Your task to perform on an android device: Show me popular games on the Play Store Image 0: 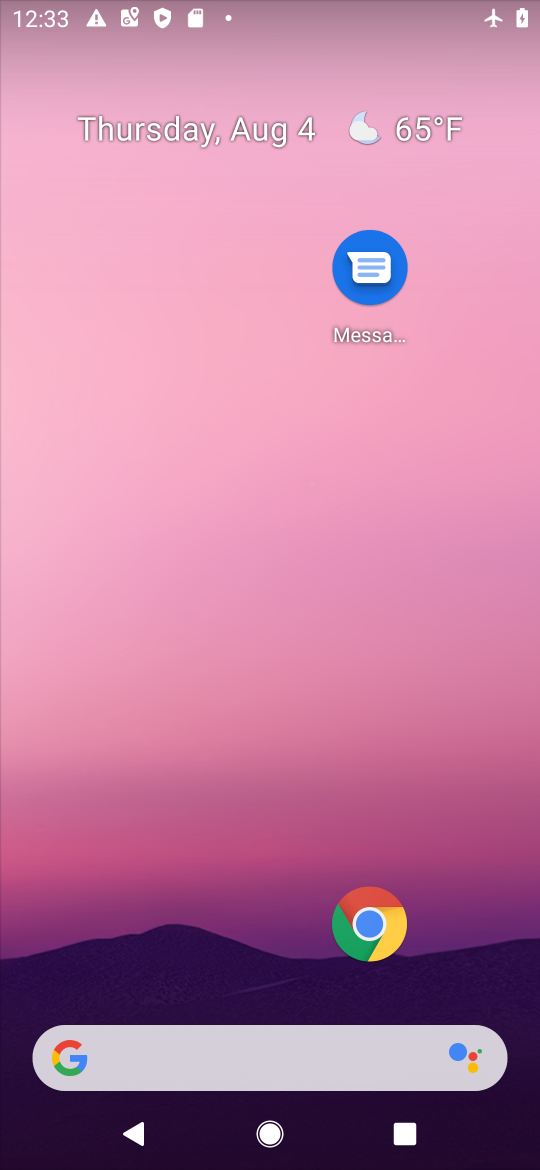
Step 0: drag from (133, 805) to (211, 315)
Your task to perform on an android device: Show me popular games on the Play Store Image 1: 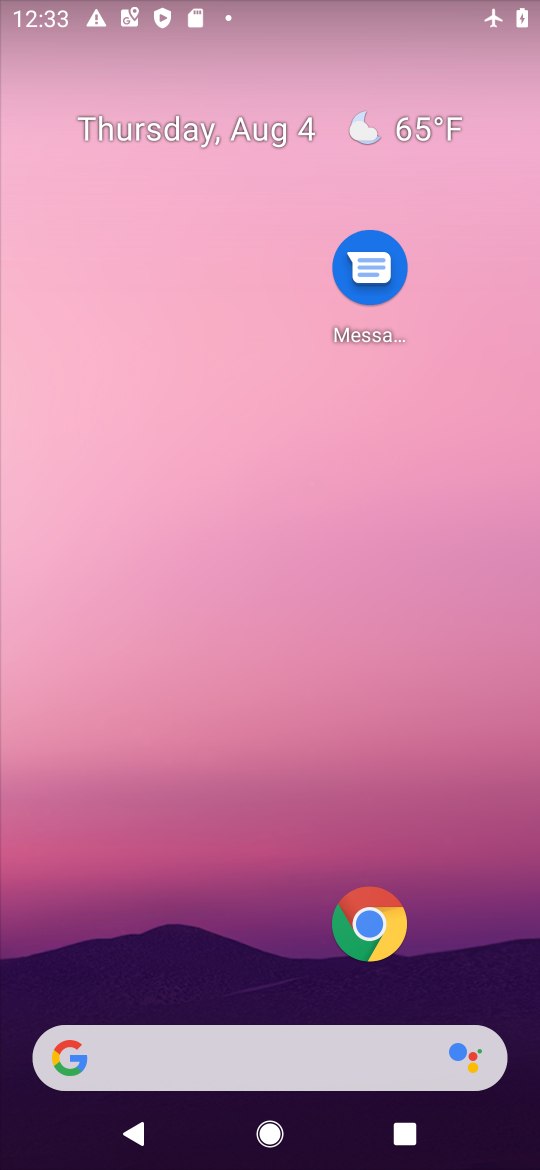
Step 1: drag from (111, 1019) to (278, 140)
Your task to perform on an android device: Show me popular games on the Play Store Image 2: 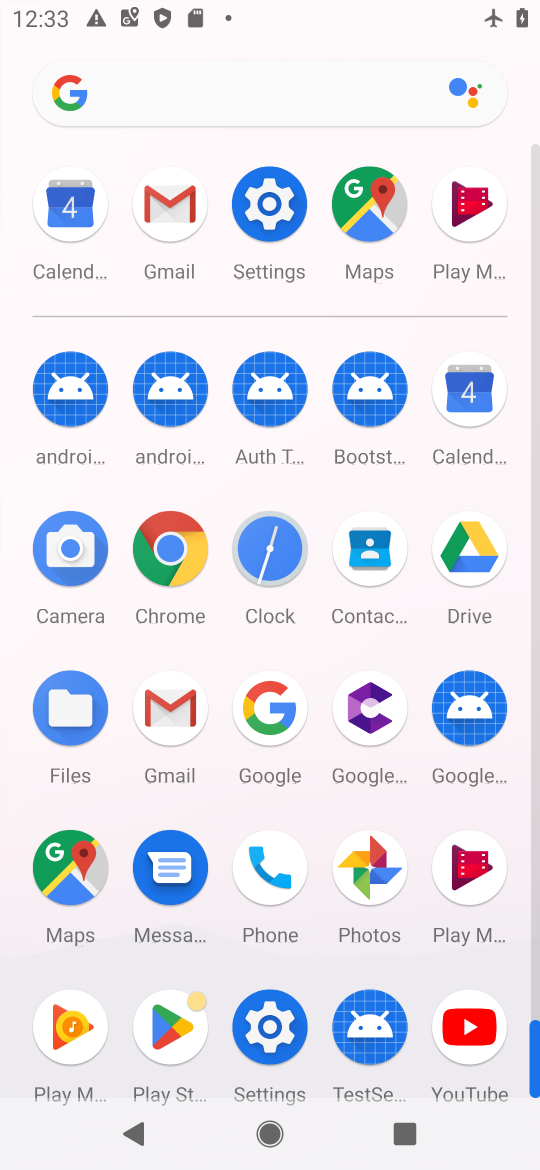
Step 2: click (161, 1034)
Your task to perform on an android device: Show me popular games on the Play Store Image 3: 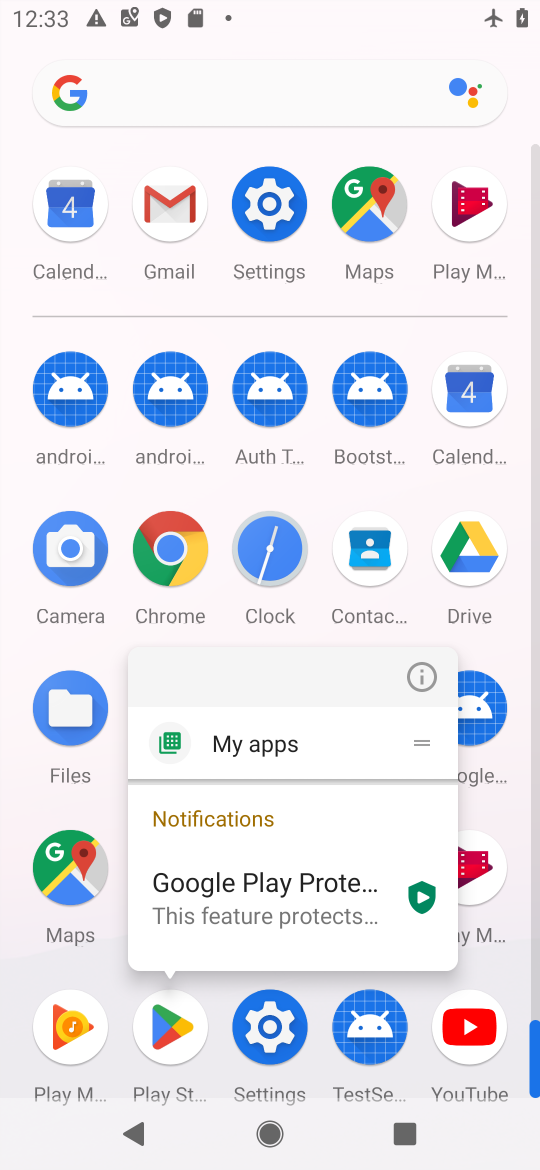
Step 3: click (162, 1042)
Your task to perform on an android device: Show me popular games on the Play Store Image 4: 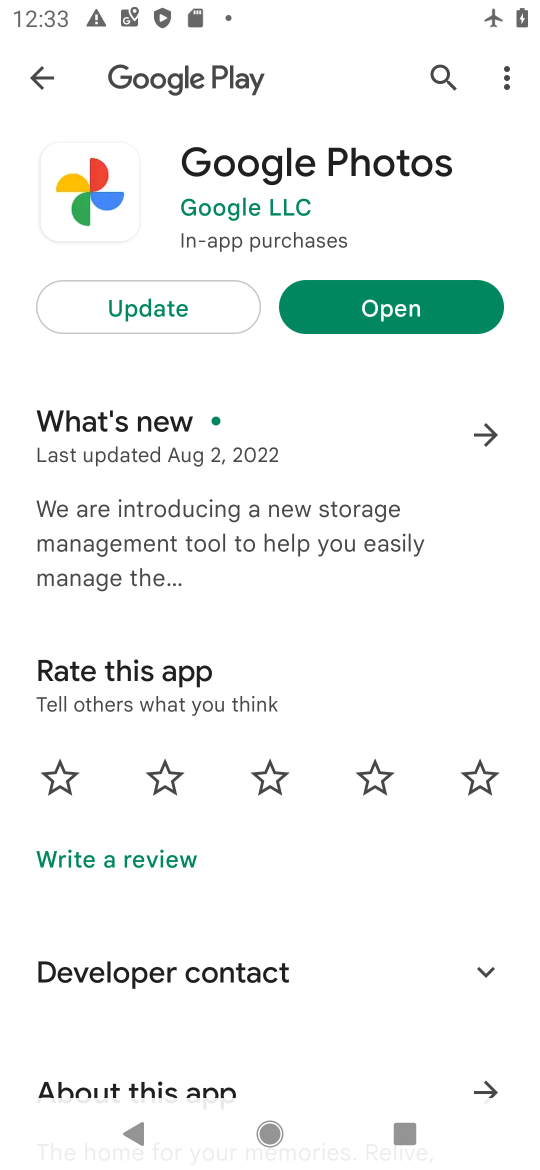
Step 4: click (44, 72)
Your task to perform on an android device: Show me popular games on the Play Store Image 5: 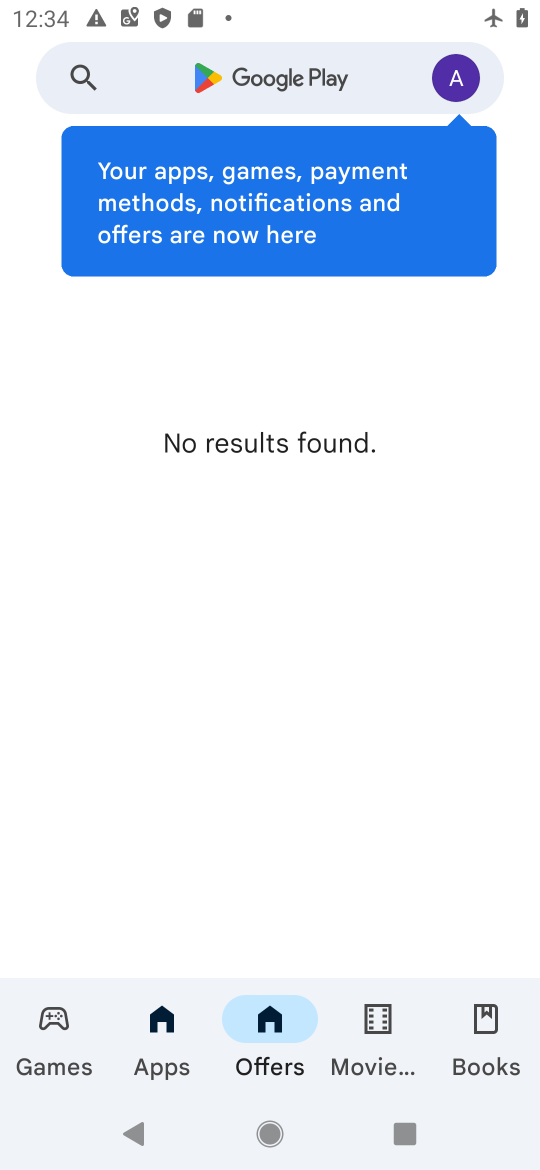
Step 5: click (166, 77)
Your task to perform on an android device: Show me popular games on the Play Store Image 6: 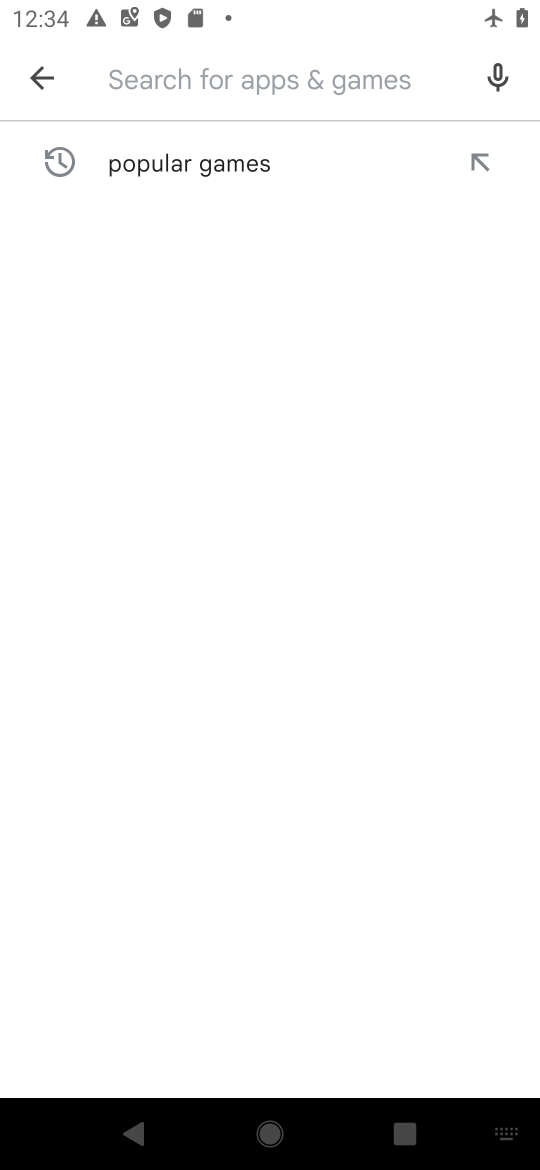
Step 6: click (227, 155)
Your task to perform on an android device: Show me popular games on the Play Store Image 7: 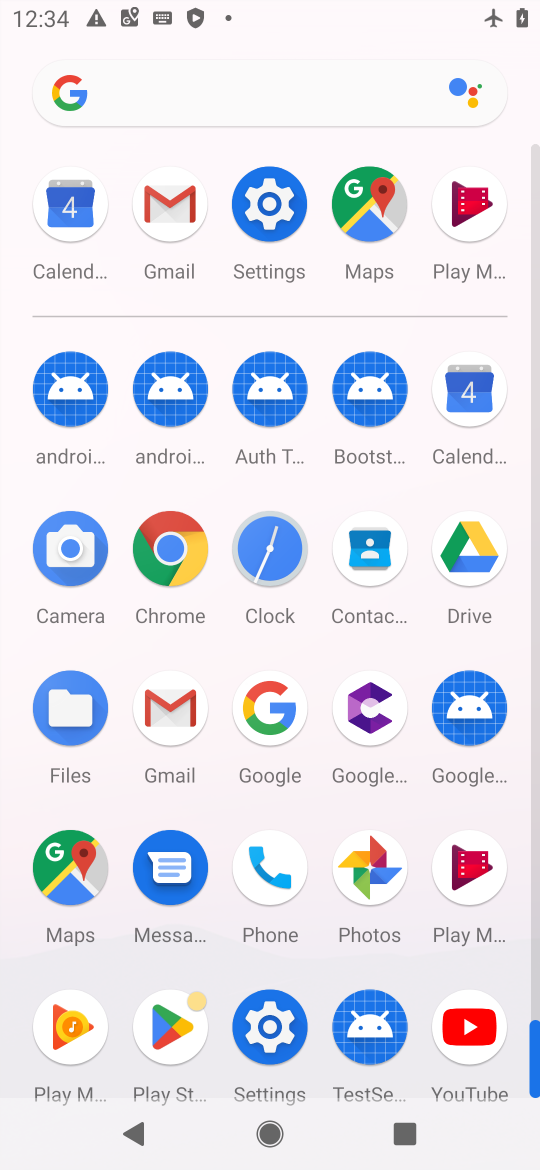
Step 7: click (167, 1038)
Your task to perform on an android device: Show me popular games on the Play Store Image 8: 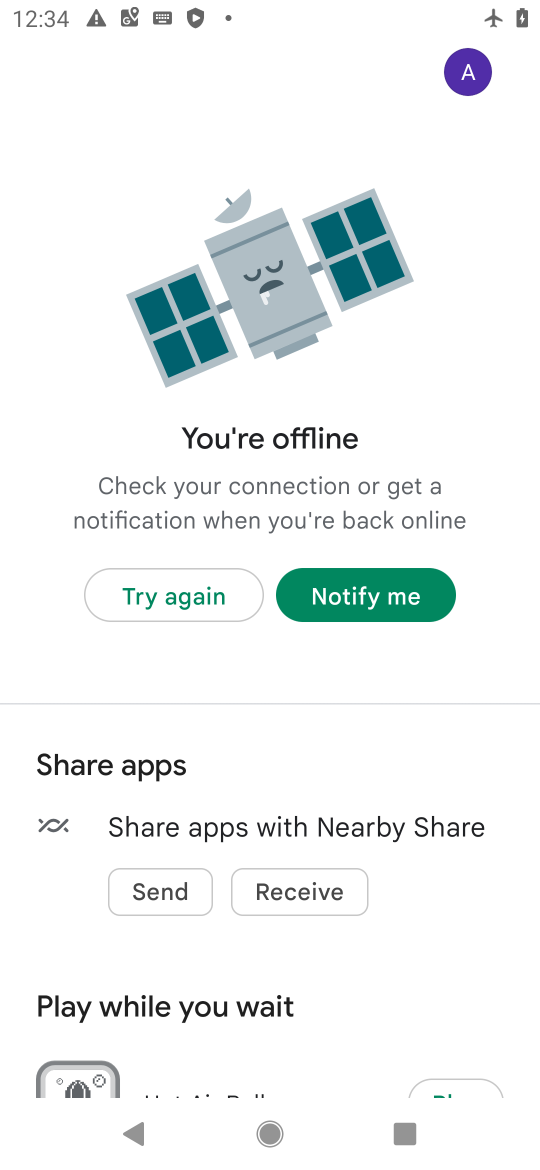
Step 8: task complete